Your task to perform on an android device: Show me popular videos on Youtube Image 0: 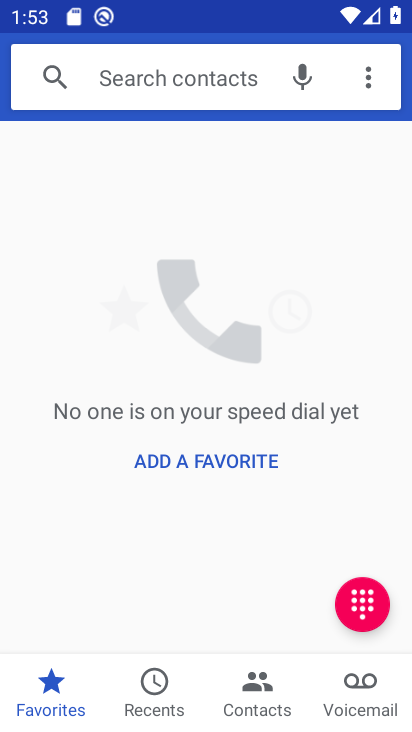
Step 0: press home button
Your task to perform on an android device: Show me popular videos on Youtube Image 1: 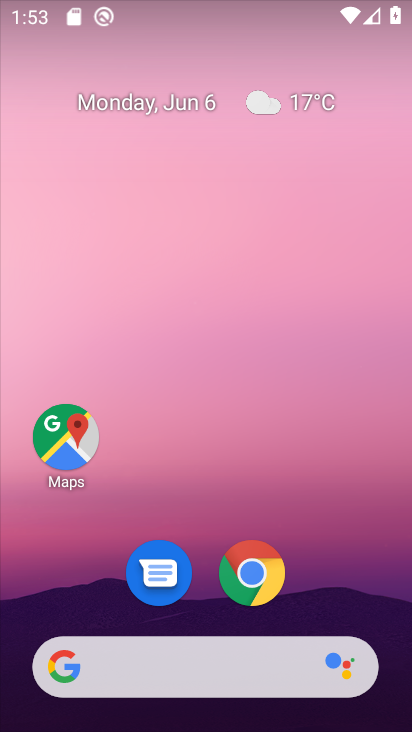
Step 1: drag from (399, 639) to (265, 98)
Your task to perform on an android device: Show me popular videos on Youtube Image 2: 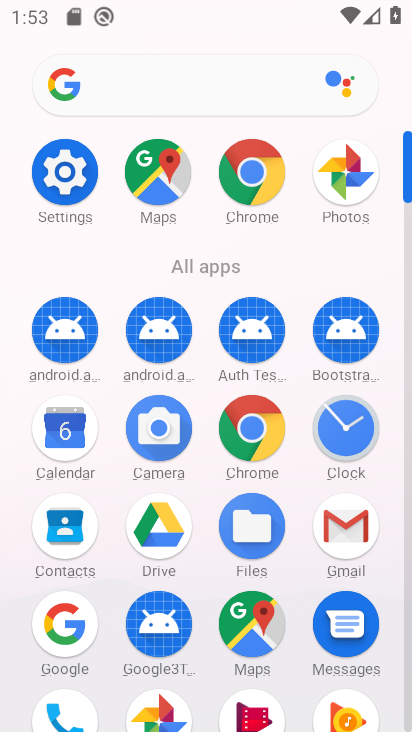
Step 2: drag from (296, 654) to (274, 241)
Your task to perform on an android device: Show me popular videos on Youtube Image 3: 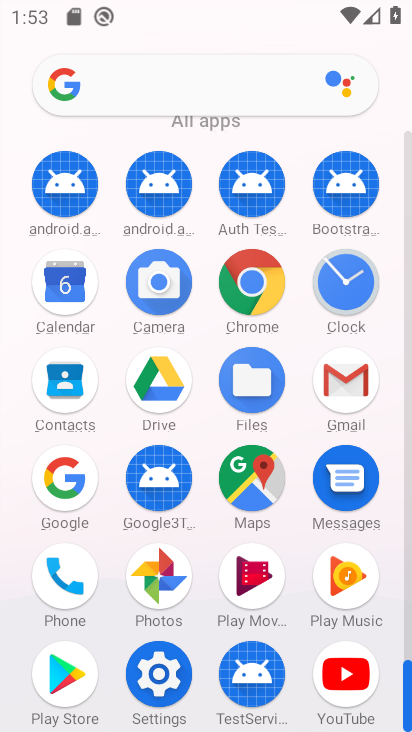
Step 3: click (349, 684)
Your task to perform on an android device: Show me popular videos on Youtube Image 4: 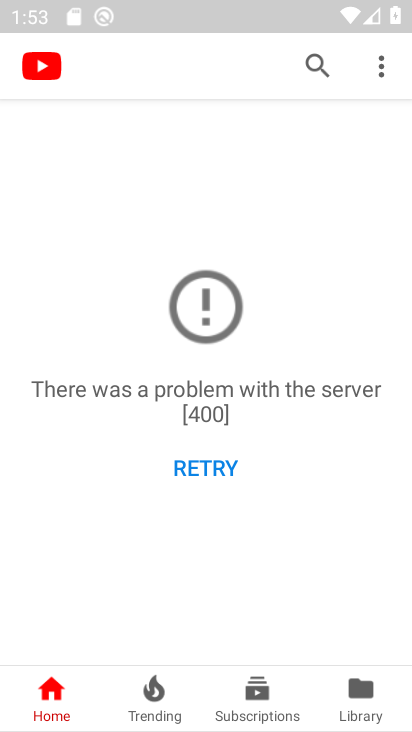
Step 4: task complete